Your task to perform on an android device: clear all cookies in the chrome app Image 0: 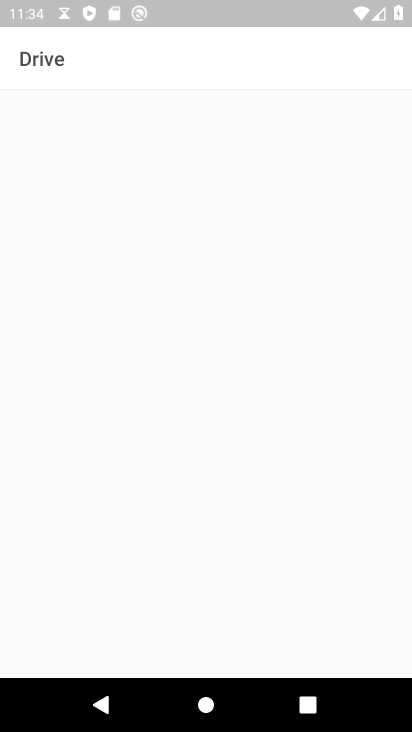
Step 0: press home button
Your task to perform on an android device: clear all cookies in the chrome app Image 1: 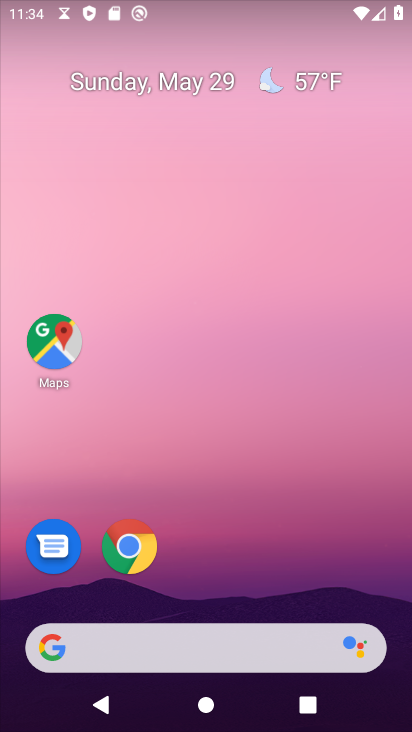
Step 1: click (120, 562)
Your task to perform on an android device: clear all cookies in the chrome app Image 2: 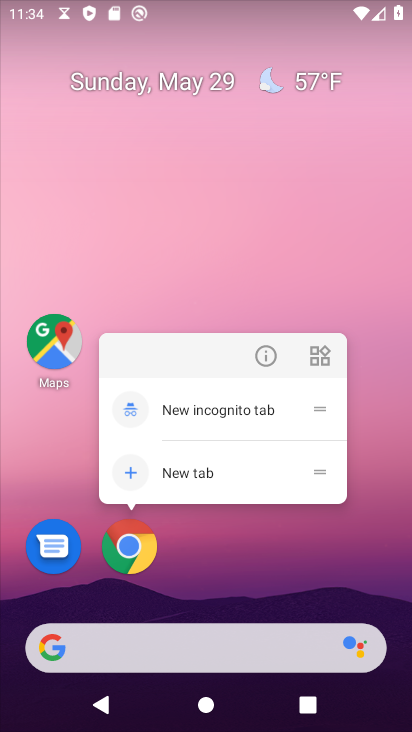
Step 2: click (139, 542)
Your task to perform on an android device: clear all cookies in the chrome app Image 3: 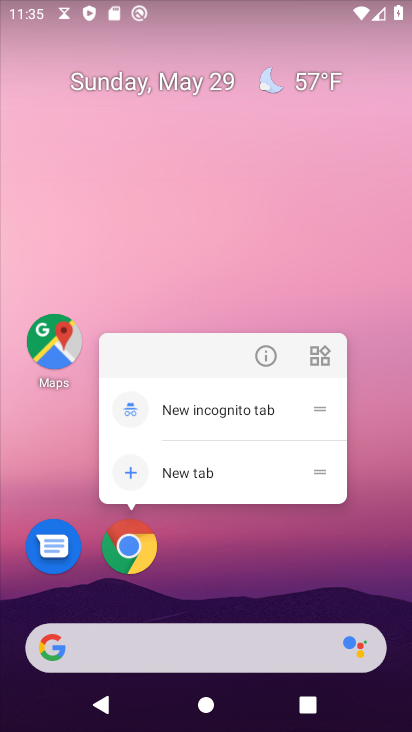
Step 3: click (138, 552)
Your task to perform on an android device: clear all cookies in the chrome app Image 4: 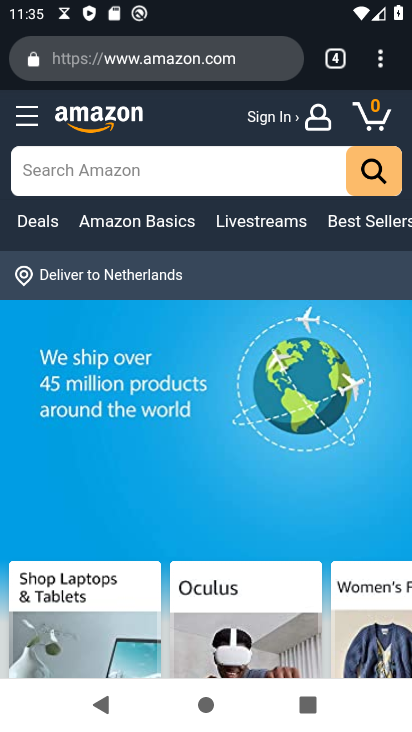
Step 4: drag from (380, 68) to (233, 571)
Your task to perform on an android device: clear all cookies in the chrome app Image 5: 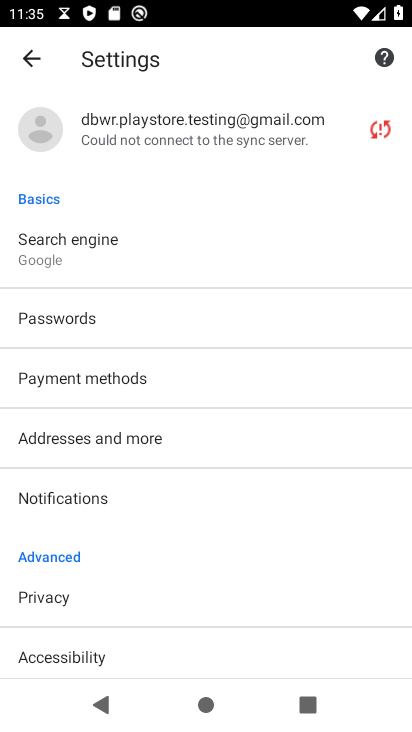
Step 5: drag from (141, 641) to (235, 355)
Your task to perform on an android device: clear all cookies in the chrome app Image 6: 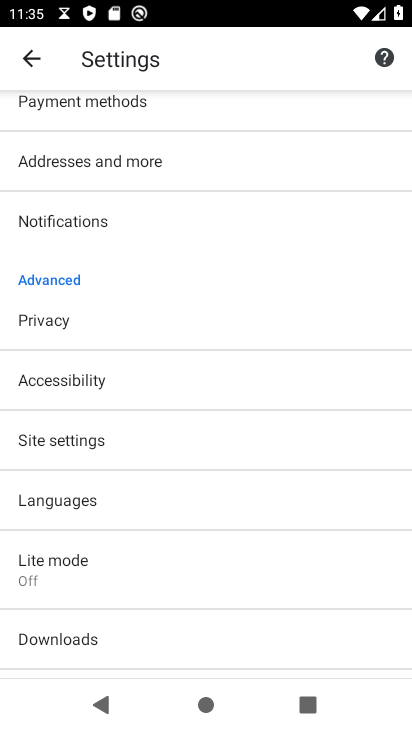
Step 6: click (52, 316)
Your task to perform on an android device: clear all cookies in the chrome app Image 7: 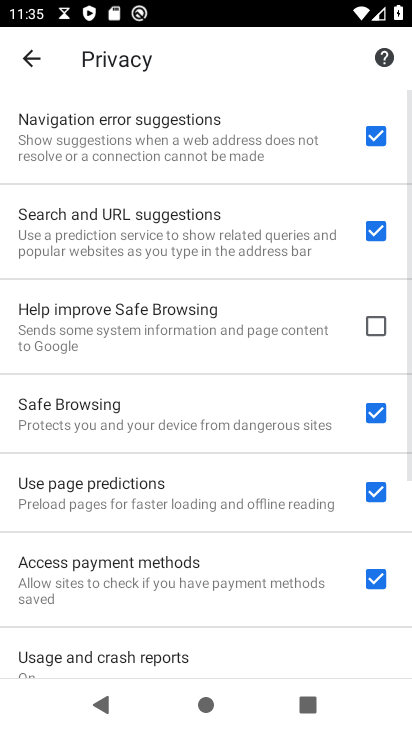
Step 7: drag from (174, 648) to (341, 141)
Your task to perform on an android device: clear all cookies in the chrome app Image 8: 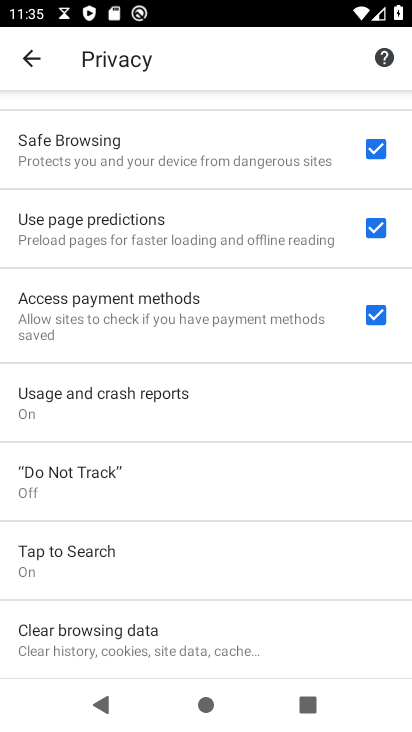
Step 8: drag from (202, 603) to (394, 88)
Your task to perform on an android device: clear all cookies in the chrome app Image 9: 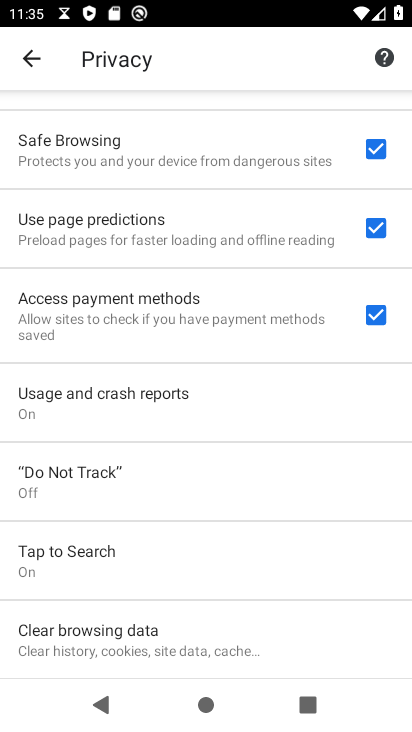
Step 9: click (149, 649)
Your task to perform on an android device: clear all cookies in the chrome app Image 10: 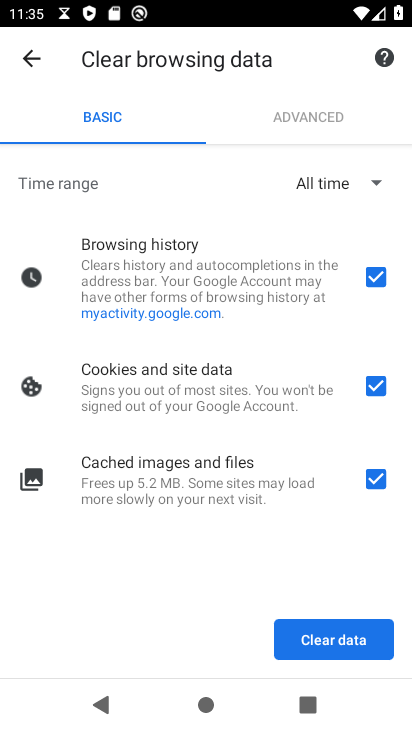
Step 10: click (375, 275)
Your task to perform on an android device: clear all cookies in the chrome app Image 11: 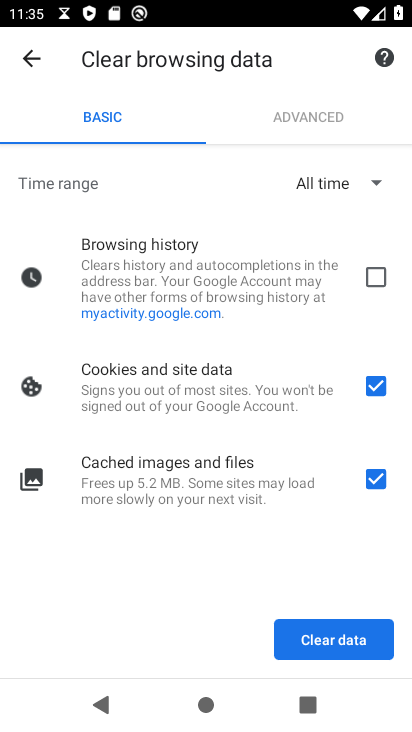
Step 11: click (376, 488)
Your task to perform on an android device: clear all cookies in the chrome app Image 12: 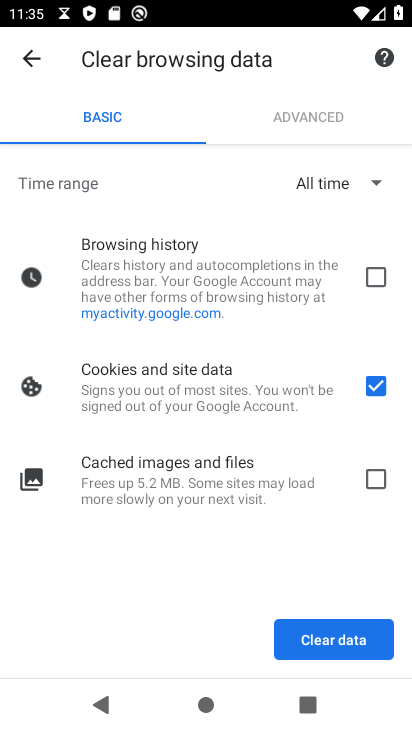
Step 12: click (327, 636)
Your task to perform on an android device: clear all cookies in the chrome app Image 13: 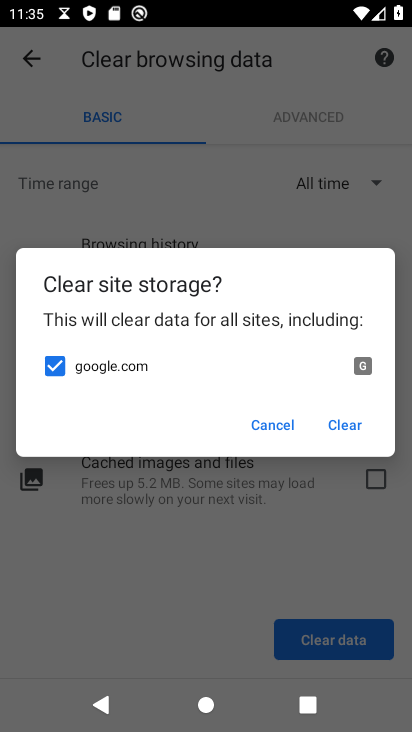
Step 13: click (349, 419)
Your task to perform on an android device: clear all cookies in the chrome app Image 14: 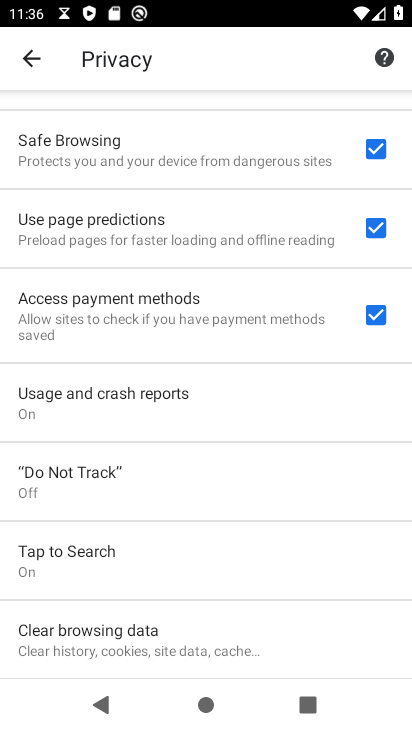
Step 14: task complete